Your task to perform on an android device: open sync settings in chrome Image 0: 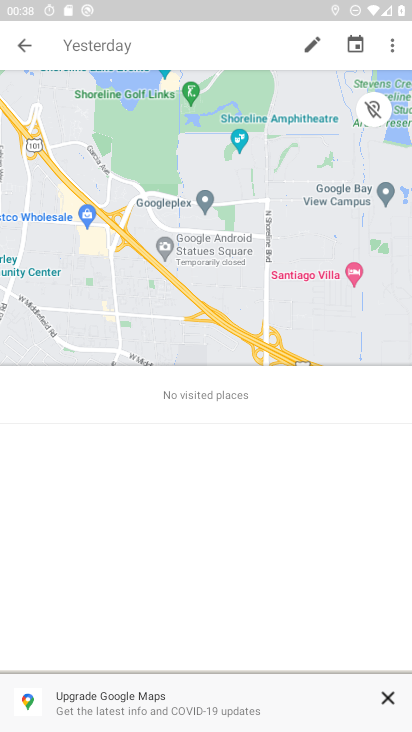
Step 0: press home button
Your task to perform on an android device: open sync settings in chrome Image 1: 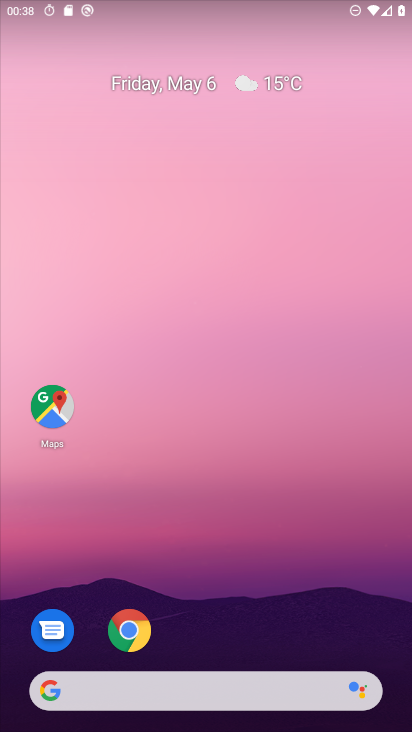
Step 1: drag from (330, 519) to (341, 119)
Your task to perform on an android device: open sync settings in chrome Image 2: 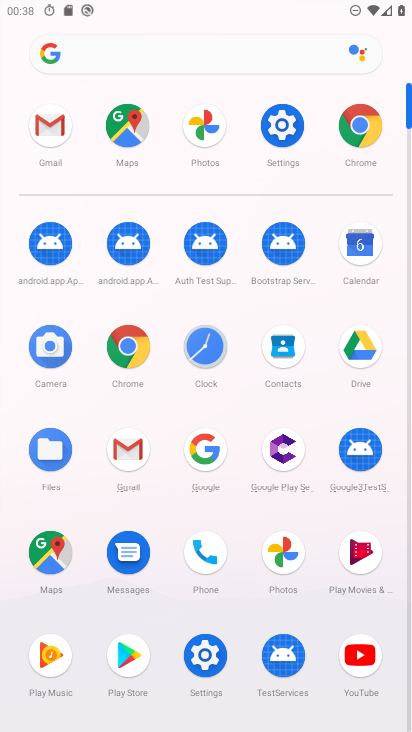
Step 2: click (351, 135)
Your task to perform on an android device: open sync settings in chrome Image 3: 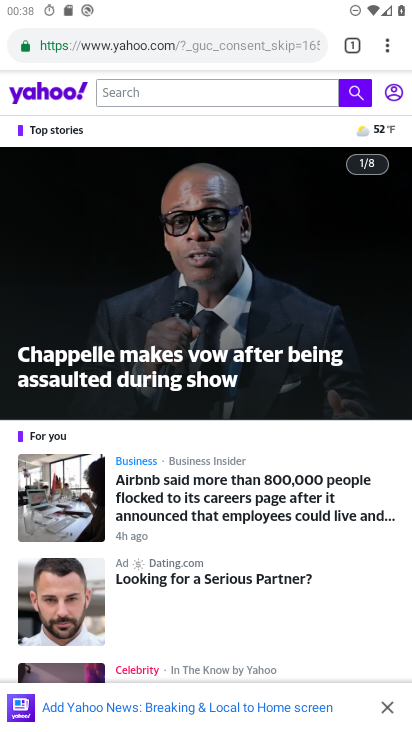
Step 3: click (394, 45)
Your task to perform on an android device: open sync settings in chrome Image 4: 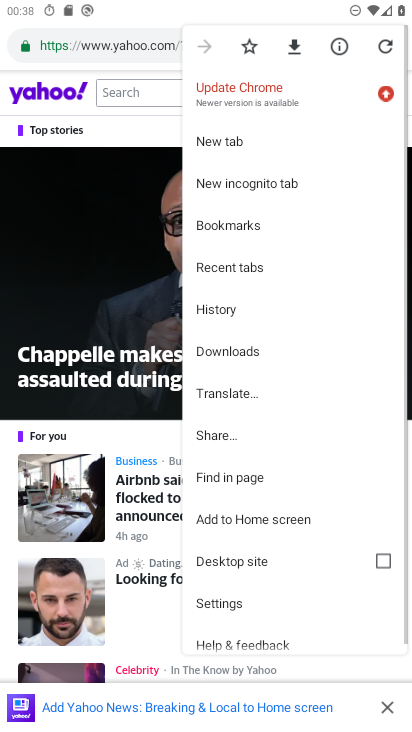
Step 4: drag from (270, 561) to (309, 203)
Your task to perform on an android device: open sync settings in chrome Image 5: 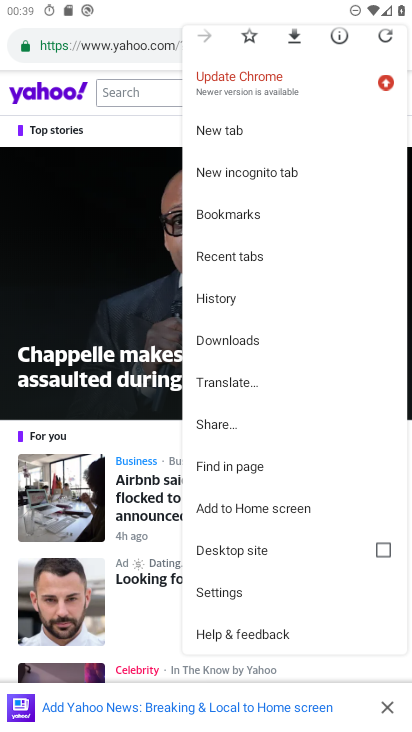
Step 5: click (236, 589)
Your task to perform on an android device: open sync settings in chrome Image 6: 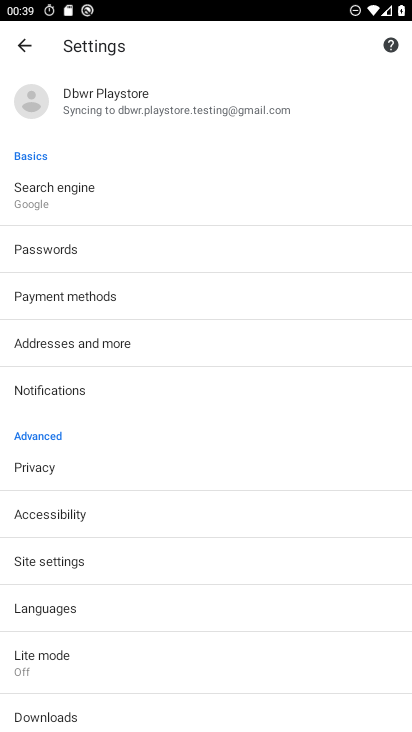
Step 6: click (147, 96)
Your task to perform on an android device: open sync settings in chrome Image 7: 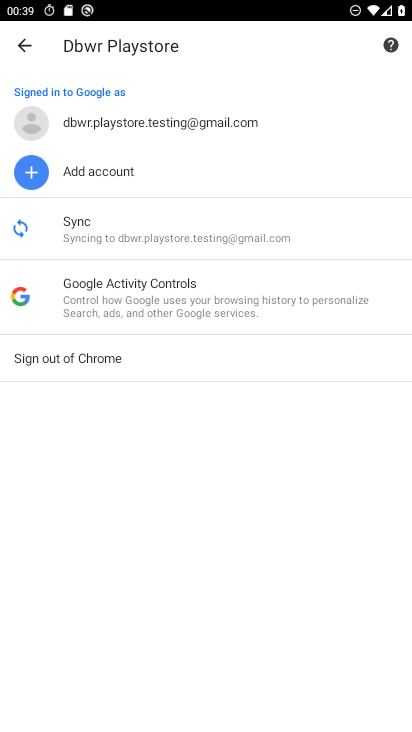
Step 7: click (105, 217)
Your task to perform on an android device: open sync settings in chrome Image 8: 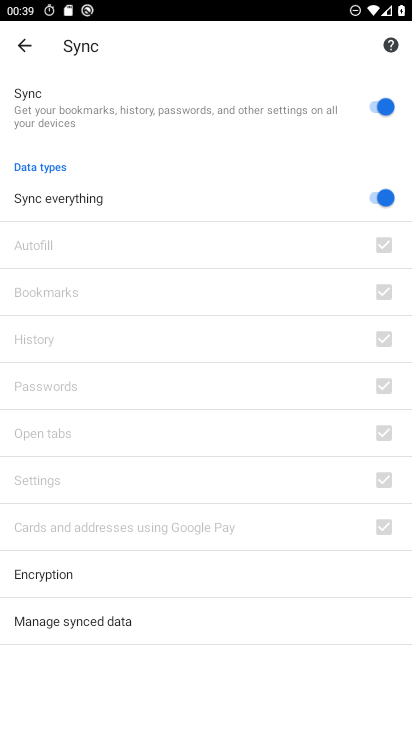
Step 8: task complete